Your task to perform on an android device: set the timer Image 0: 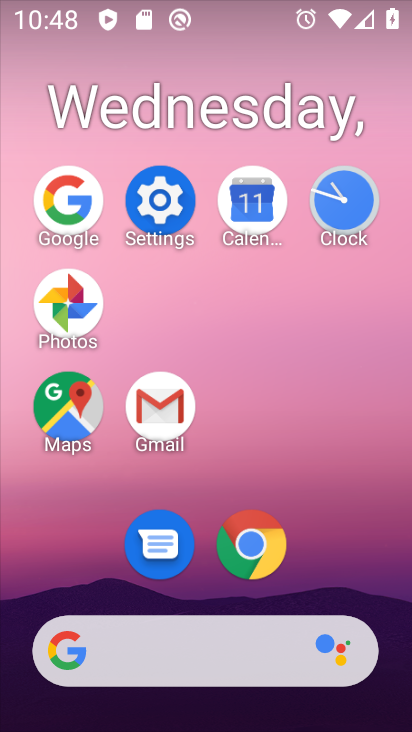
Step 0: click (327, 197)
Your task to perform on an android device: set the timer Image 1: 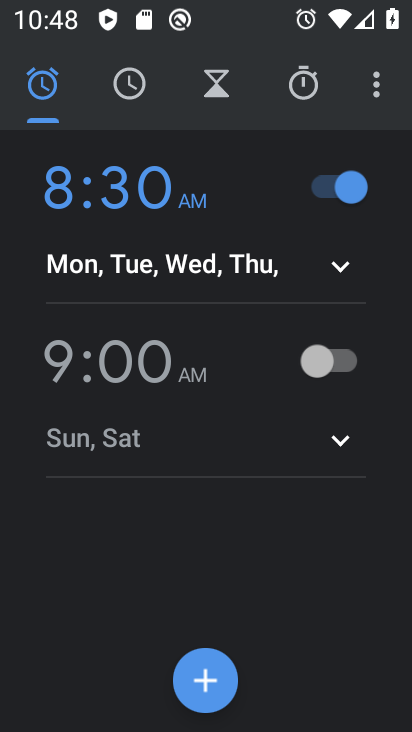
Step 1: click (228, 76)
Your task to perform on an android device: set the timer Image 2: 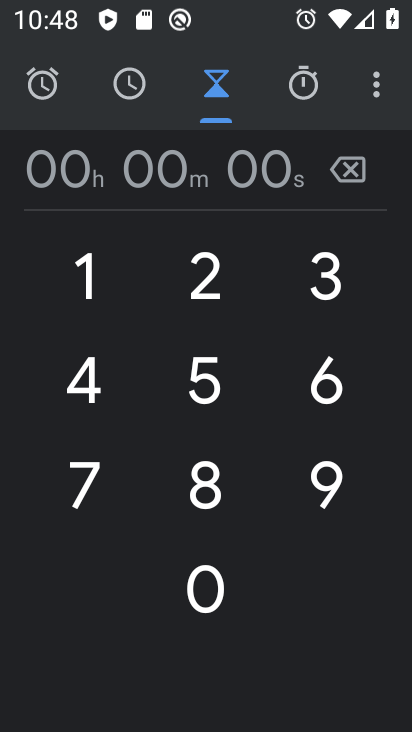
Step 2: click (208, 265)
Your task to perform on an android device: set the timer Image 3: 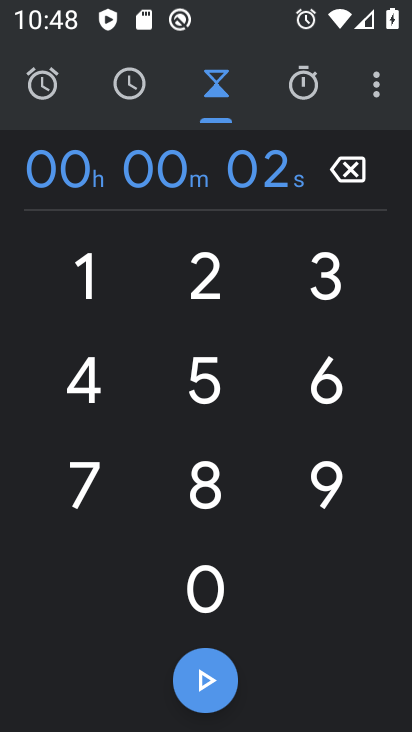
Step 3: click (208, 265)
Your task to perform on an android device: set the timer Image 4: 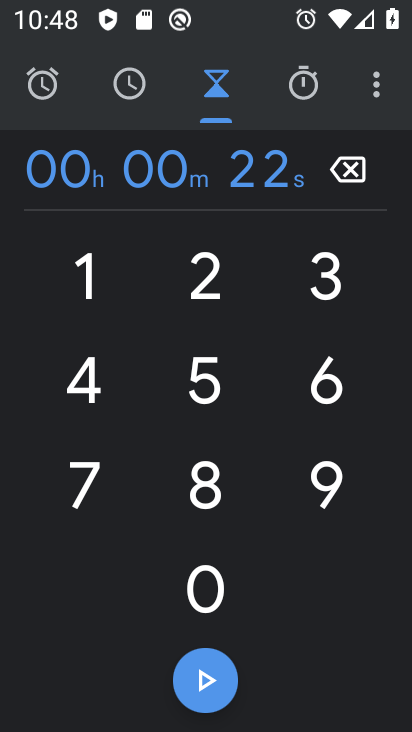
Step 4: click (207, 684)
Your task to perform on an android device: set the timer Image 5: 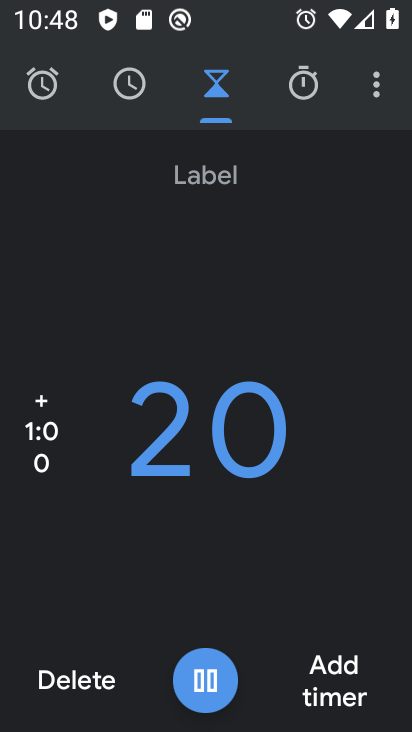
Step 5: task complete